Your task to perform on an android device: turn off wifi Image 0: 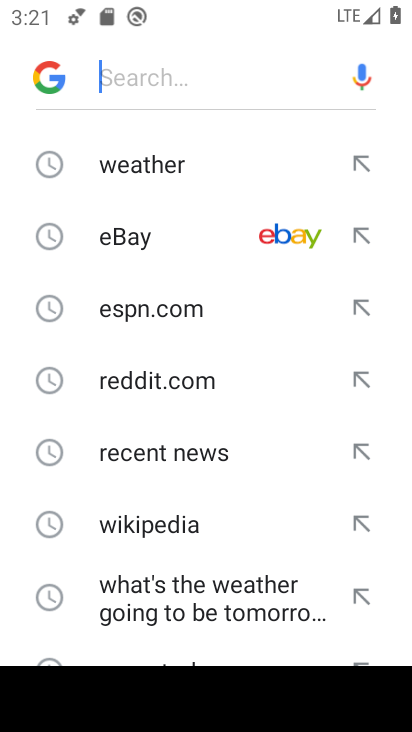
Step 0: press home button
Your task to perform on an android device: turn off wifi Image 1: 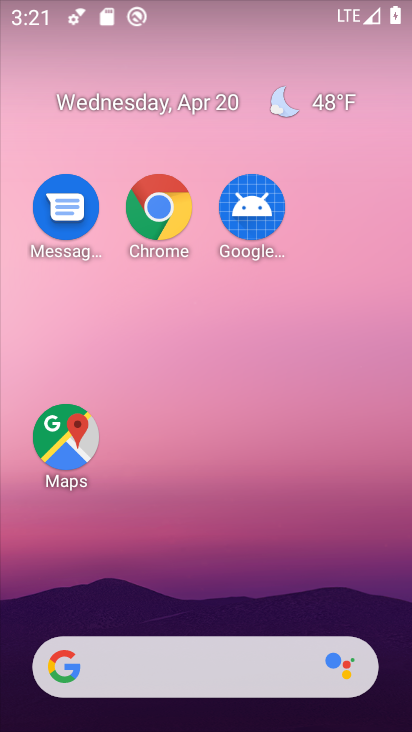
Step 1: drag from (297, 598) to (294, 399)
Your task to perform on an android device: turn off wifi Image 2: 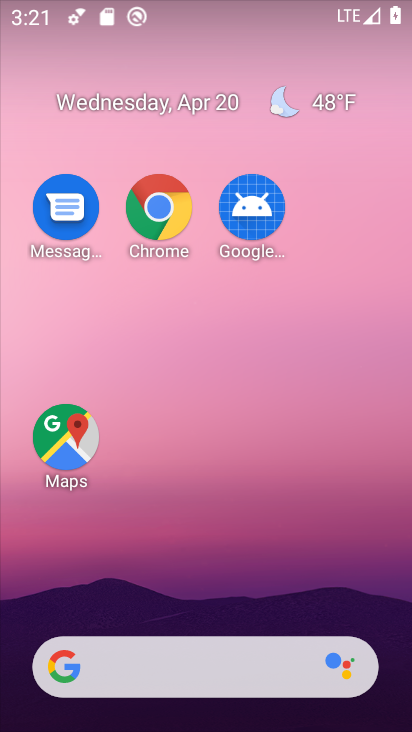
Step 2: drag from (240, 603) to (245, 319)
Your task to perform on an android device: turn off wifi Image 3: 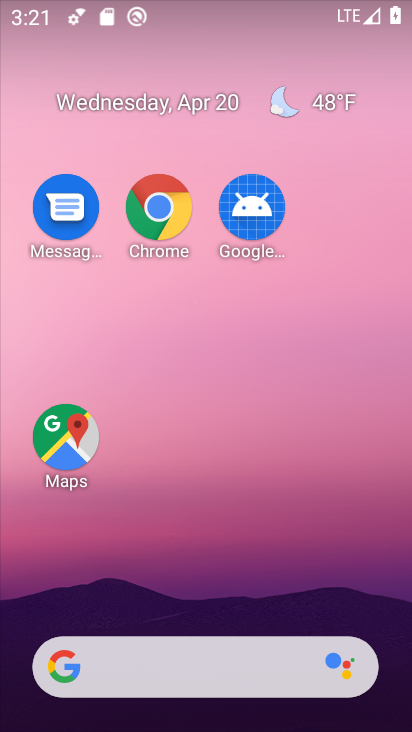
Step 3: drag from (249, 555) to (256, 197)
Your task to perform on an android device: turn off wifi Image 4: 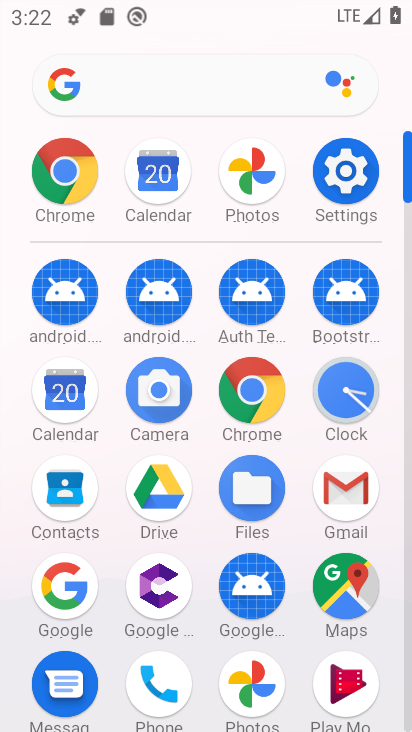
Step 4: click (361, 180)
Your task to perform on an android device: turn off wifi Image 5: 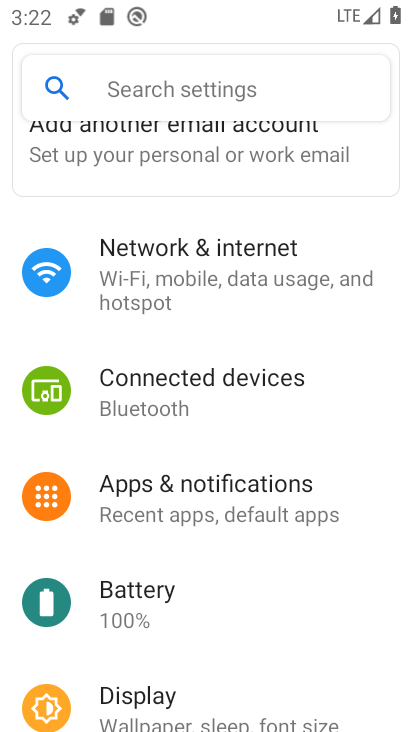
Step 5: click (290, 258)
Your task to perform on an android device: turn off wifi Image 6: 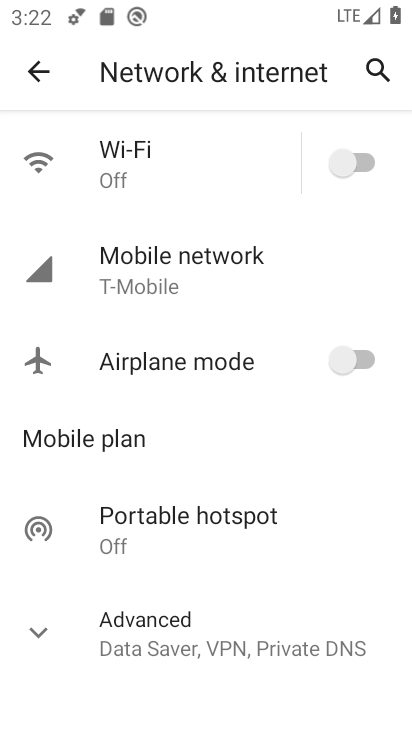
Step 6: task complete